Your task to perform on an android device: Open settings on Google Maps Image 0: 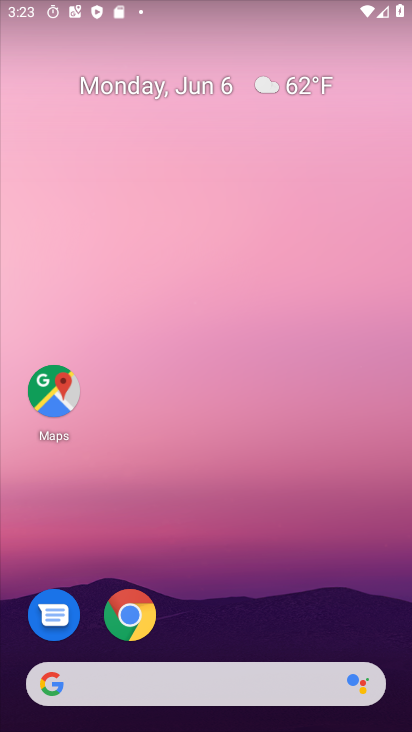
Step 0: drag from (223, 675) to (304, 74)
Your task to perform on an android device: Open settings on Google Maps Image 1: 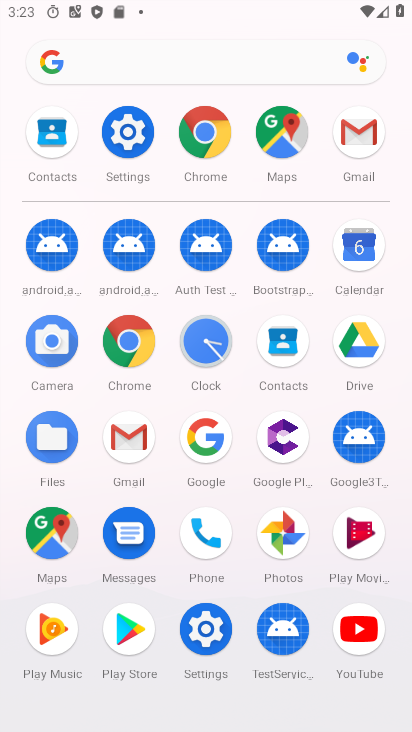
Step 1: click (43, 528)
Your task to perform on an android device: Open settings on Google Maps Image 2: 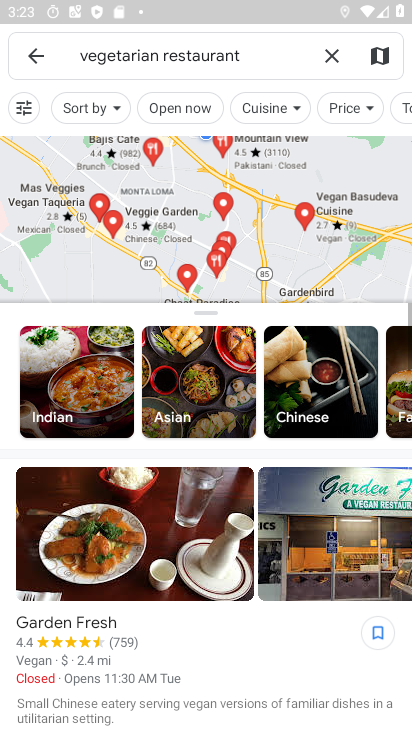
Step 2: press back button
Your task to perform on an android device: Open settings on Google Maps Image 3: 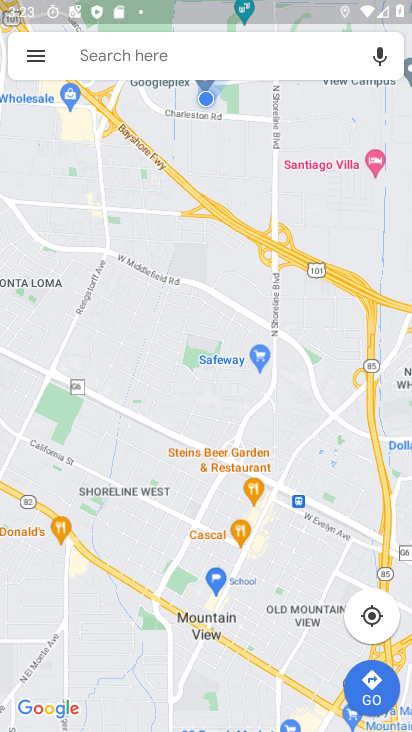
Step 3: click (39, 57)
Your task to perform on an android device: Open settings on Google Maps Image 4: 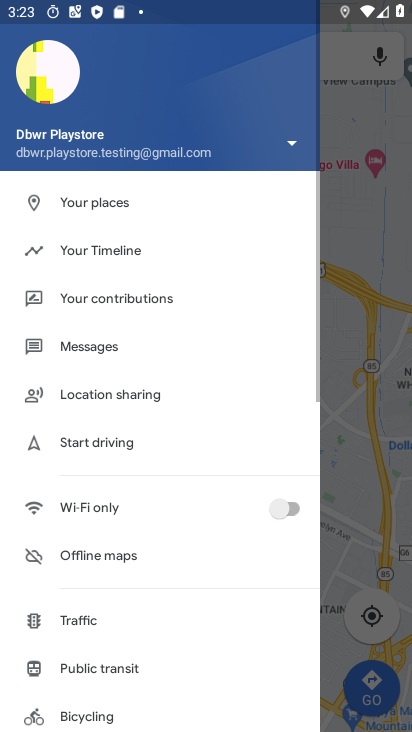
Step 4: drag from (160, 657) to (195, 278)
Your task to perform on an android device: Open settings on Google Maps Image 5: 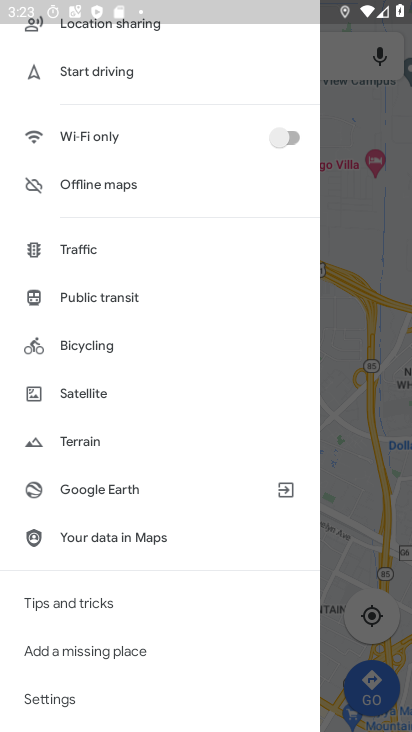
Step 5: drag from (153, 338) to (138, 664)
Your task to perform on an android device: Open settings on Google Maps Image 6: 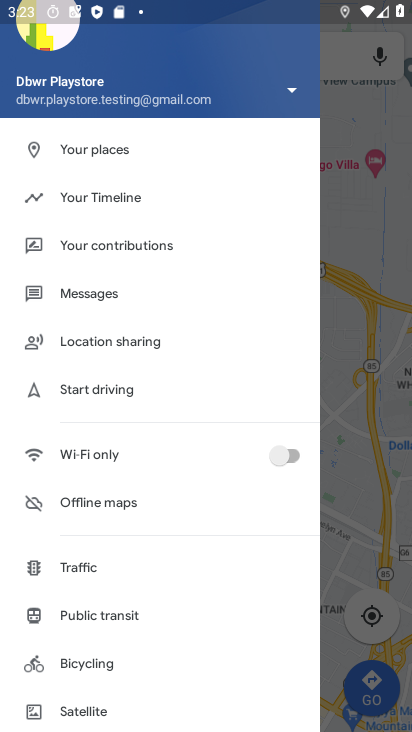
Step 6: click (153, 202)
Your task to perform on an android device: Open settings on Google Maps Image 7: 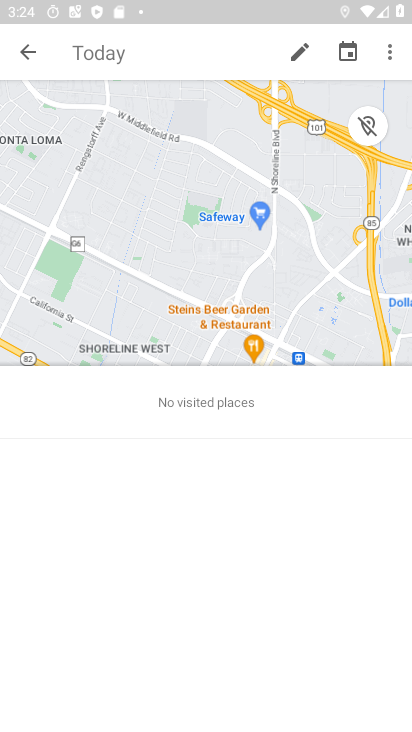
Step 7: click (404, 46)
Your task to perform on an android device: Open settings on Google Maps Image 8: 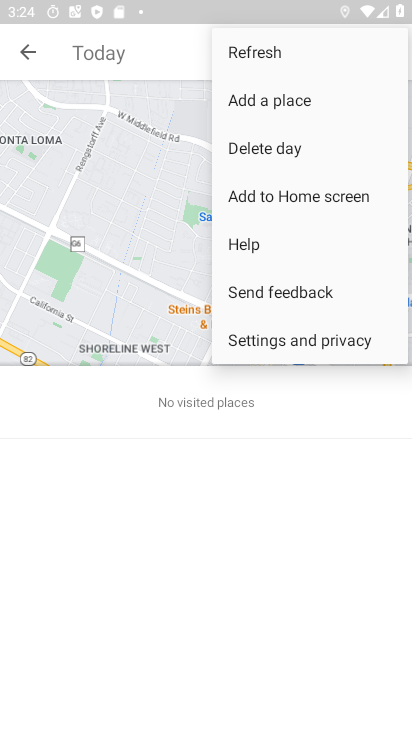
Step 8: click (265, 336)
Your task to perform on an android device: Open settings on Google Maps Image 9: 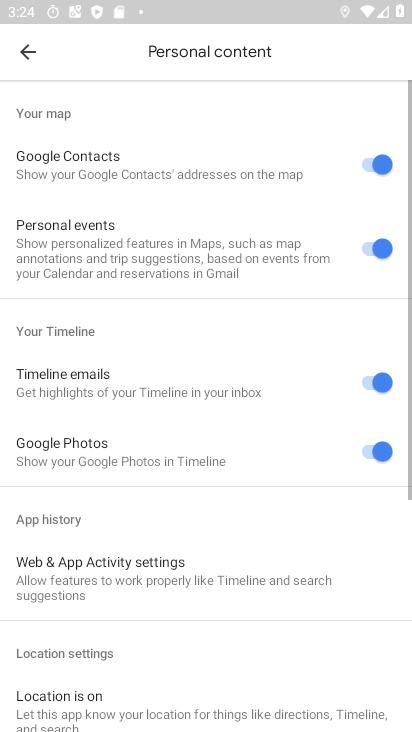
Step 9: task complete